Your task to perform on an android device: turn off improve location accuracy Image 0: 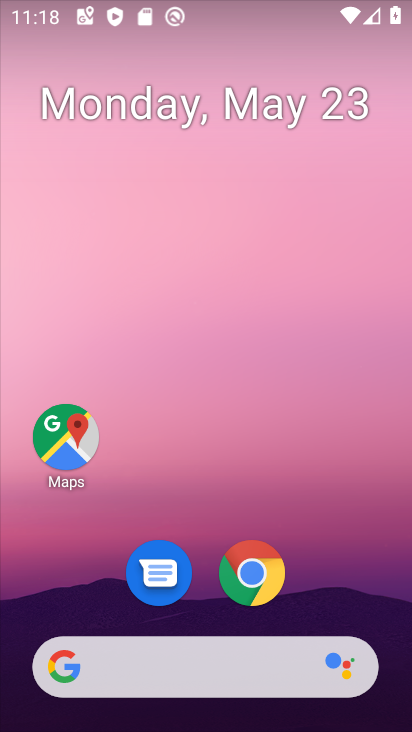
Step 0: drag from (323, 624) to (261, 12)
Your task to perform on an android device: turn off improve location accuracy Image 1: 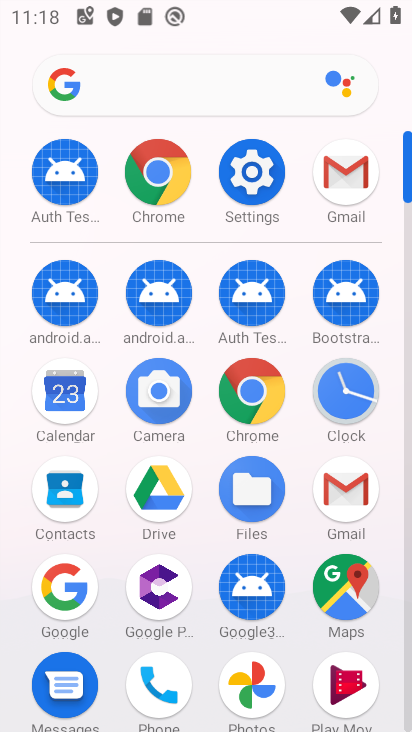
Step 1: click (256, 179)
Your task to perform on an android device: turn off improve location accuracy Image 2: 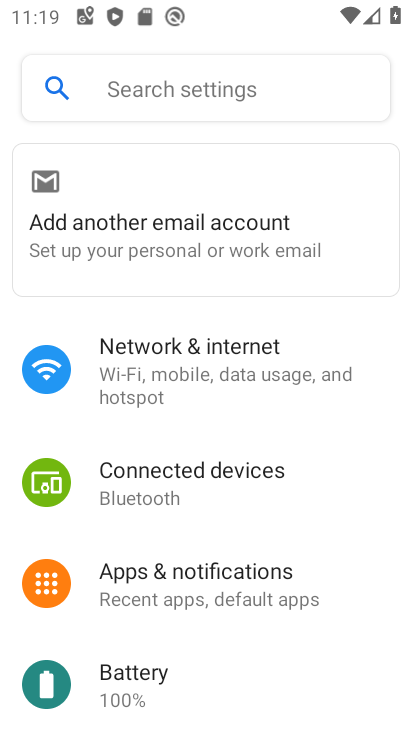
Step 2: drag from (266, 494) to (168, 26)
Your task to perform on an android device: turn off improve location accuracy Image 3: 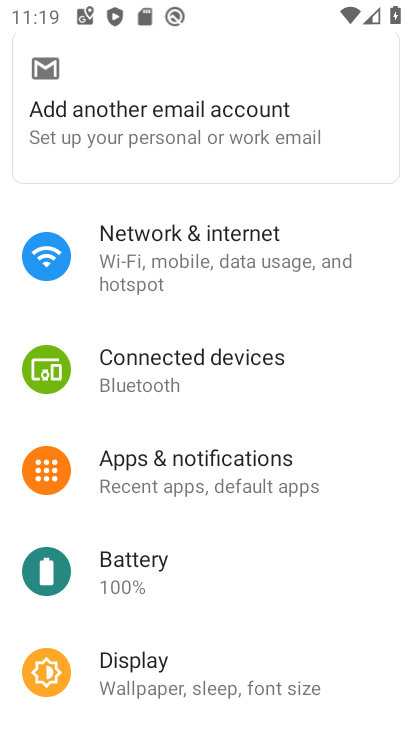
Step 3: drag from (269, 655) to (249, 358)
Your task to perform on an android device: turn off improve location accuracy Image 4: 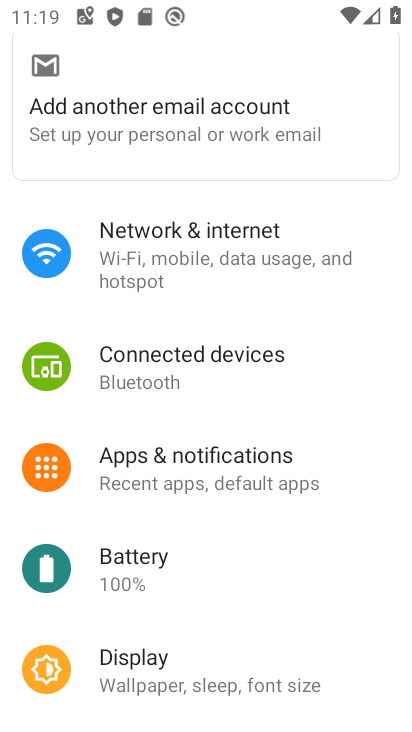
Step 4: drag from (219, 548) to (190, 342)
Your task to perform on an android device: turn off improve location accuracy Image 5: 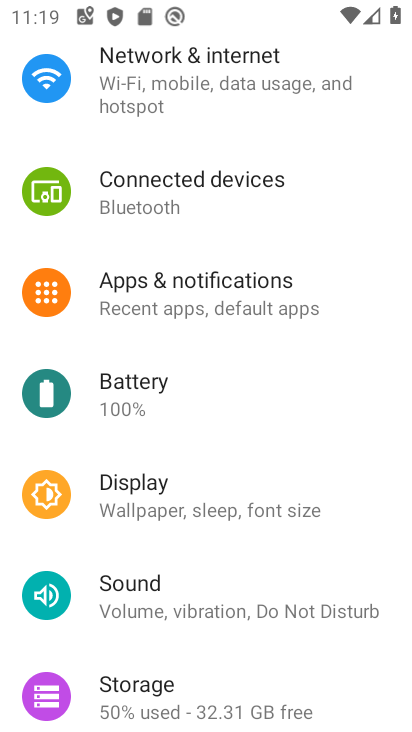
Step 5: drag from (230, 662) to (153, 161)
Your task to perform on an android device: turn off improve location accuracy Image 6: 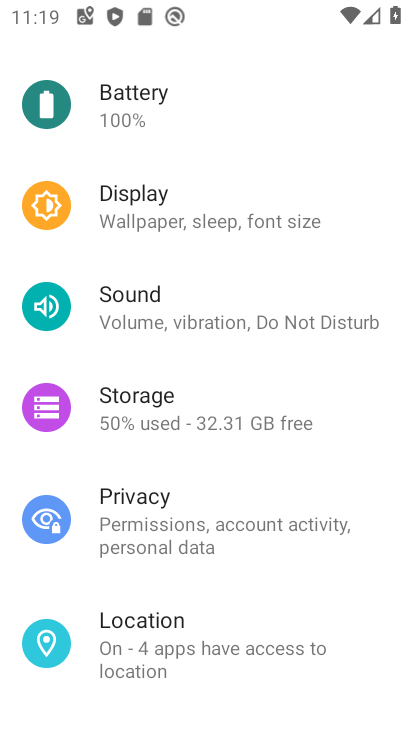
Step 6: click (273, 642)
Your task to perform on an android device: turn off improve location accuracy Image 7: 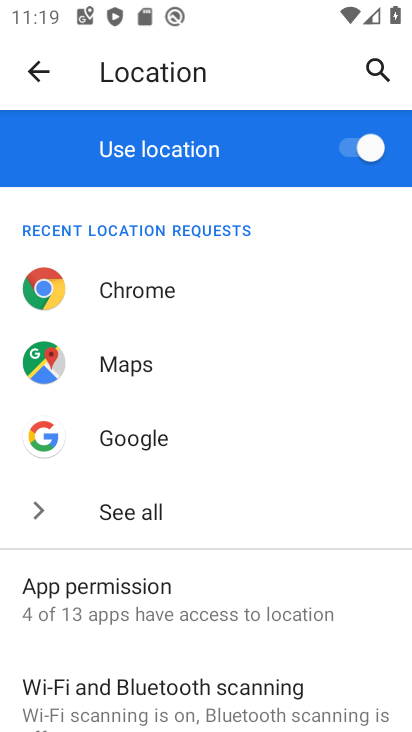
Step 7: drag from (220, 663) to (225, 249)
Your task to perform on an android device: turn off improve location accuracy Image 8: 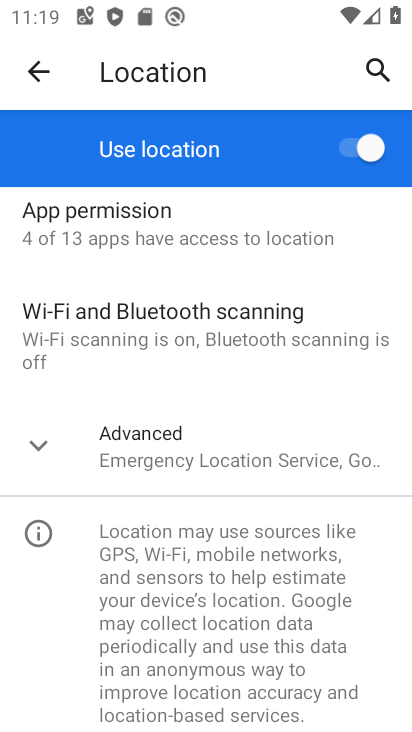
Step 8: click (256, 460)
Your task to perform on an android device: turn off improve location accuracy Image 9: 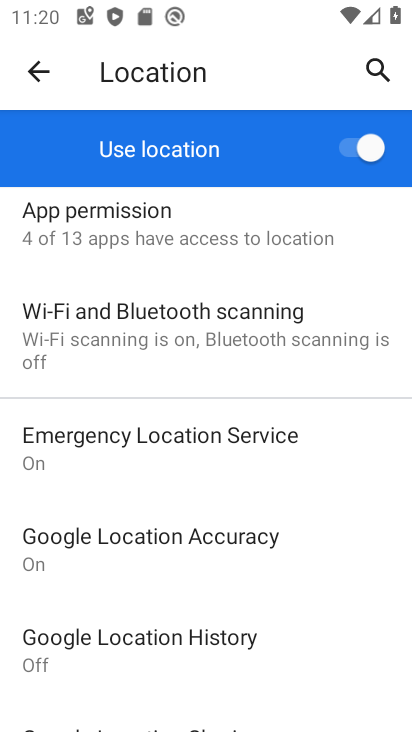
Step 9: click (263, 562)
Your task to perform on an android device: turn off improve location accuracy Image 10: 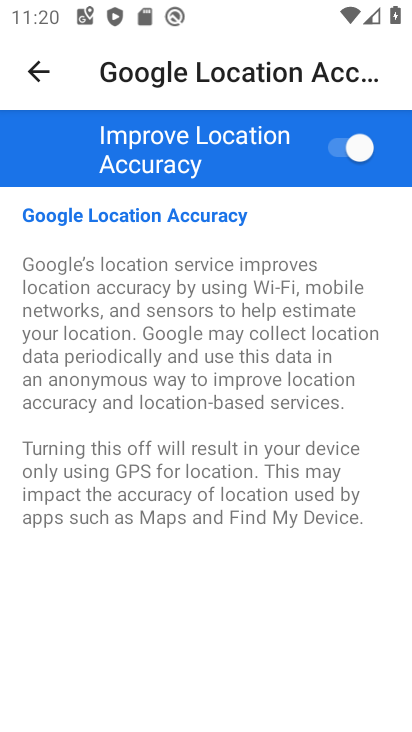
Step 10: click (343, 159)
Your task to perform on an android device: turn off improve location accuracy Image 11: 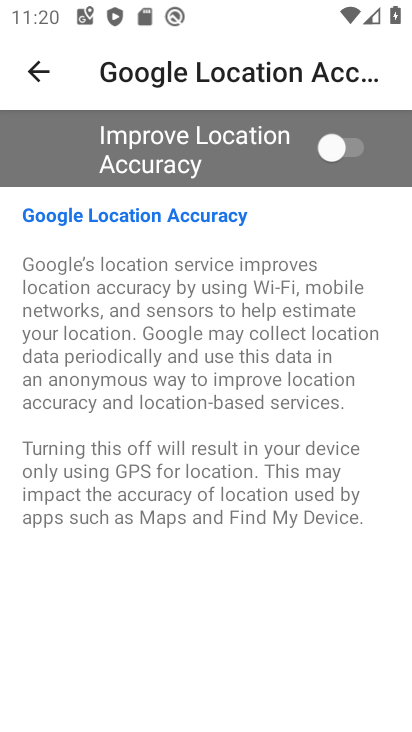
Step 11: task complete